Your task to perform on an android device: What's on my calendar today? Image 0: 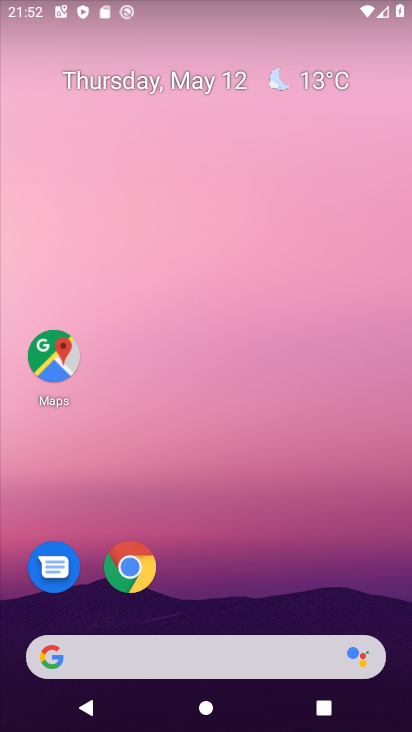
Step 0: press home button
Your task to perform on an android device: What's on my calendar today? Image 1: 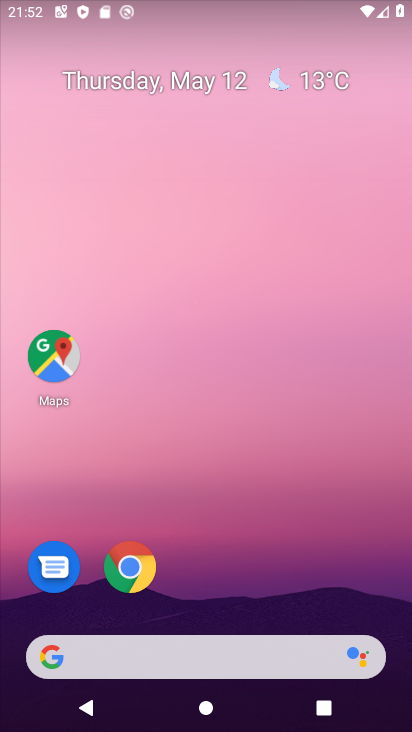
Step 1: drag from (222, 614) to (251, 103)
Your task to perform on an android device: What's on my calendar today? Image 2: 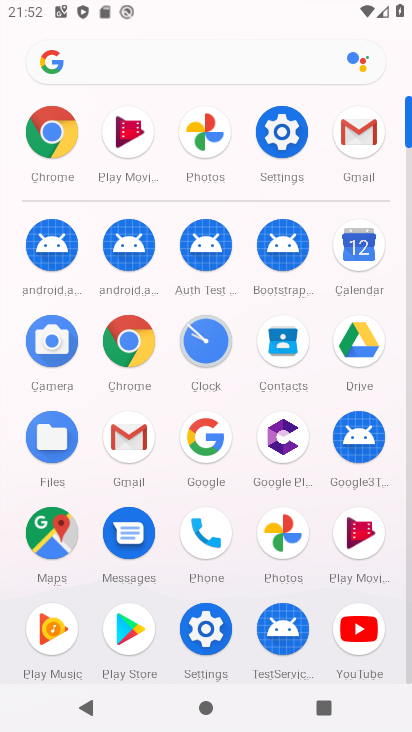
Step 2: click (359, 242)
Your task to perform on an android device: What's on my calendar today? Image 3: 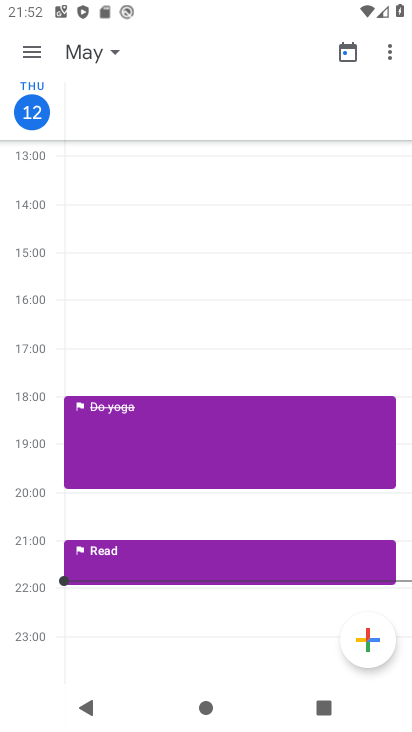
Step 3: task complete